Your task to perform on an android device: Find coffee shops on Maps Image 0: 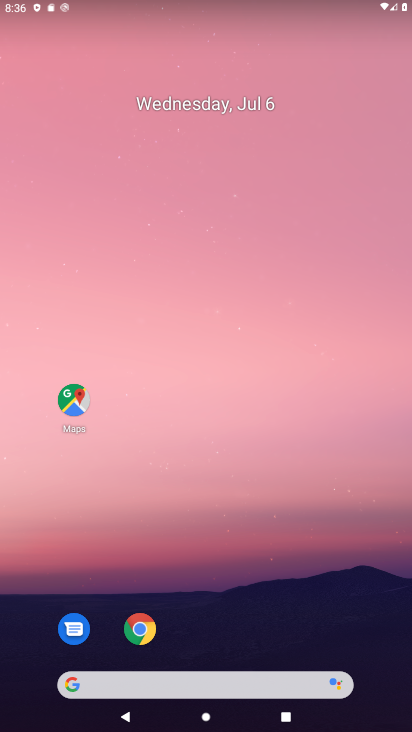
Step 0: drag from (234, 632) to (228, 149)
Your task to perform on an android device: Find coffee shops on Maps Image 1: 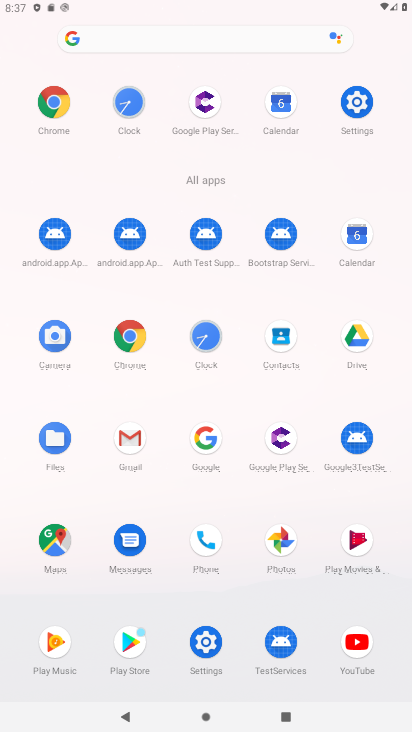
Step 1: click (58, 541)
Your task to perform on an android device: Find coffee shops on Maps Image 2: 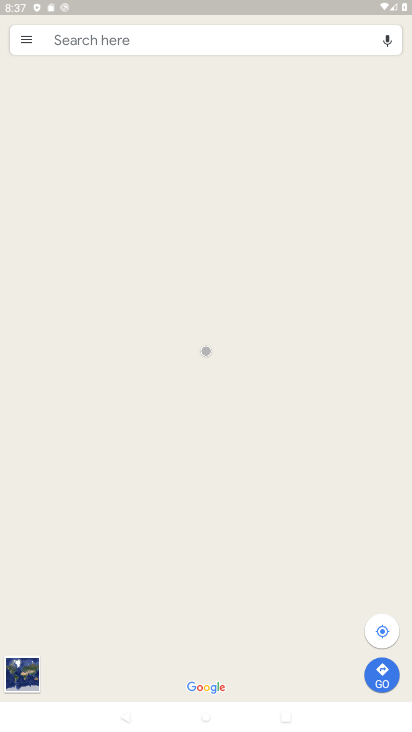
Step 2: click (151, 39)
Your task to perform on an android device: Find coffee shops on Maps Image 3: 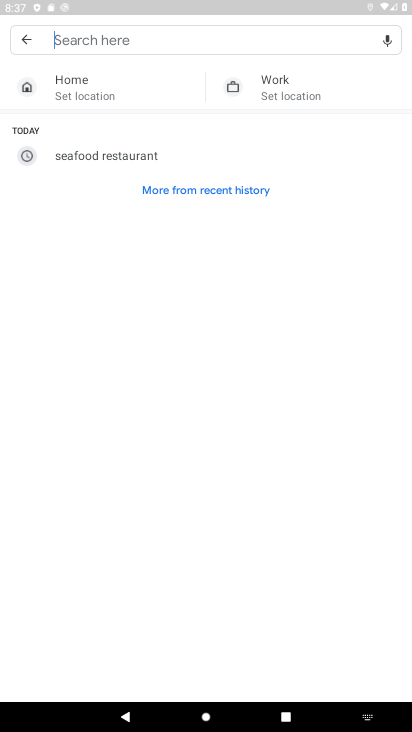
Step 3: type "coffee shops"
Your task to perform on an android device: Find coffee shops on Maps Image 4: 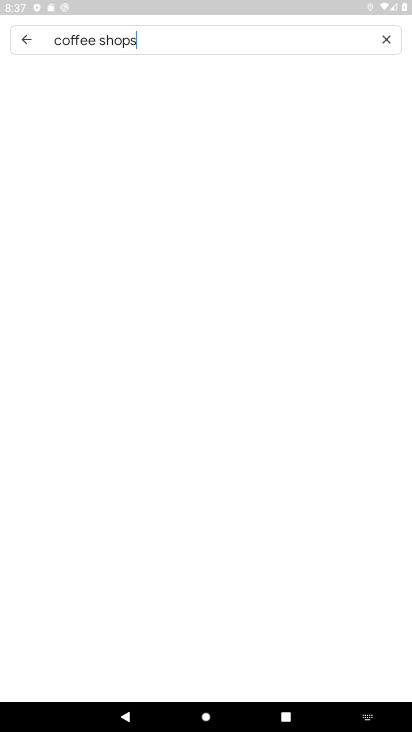
Step 4: type ""
Your task to perform on an android device: Find coffee shops on Maps Image 5: 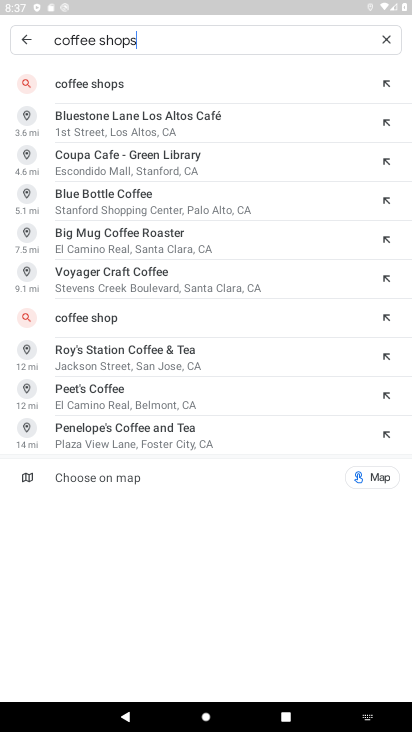
Step 5: click (99, 87)
Your task to perform on an android device: Find coffee shops on Maps Image 6: 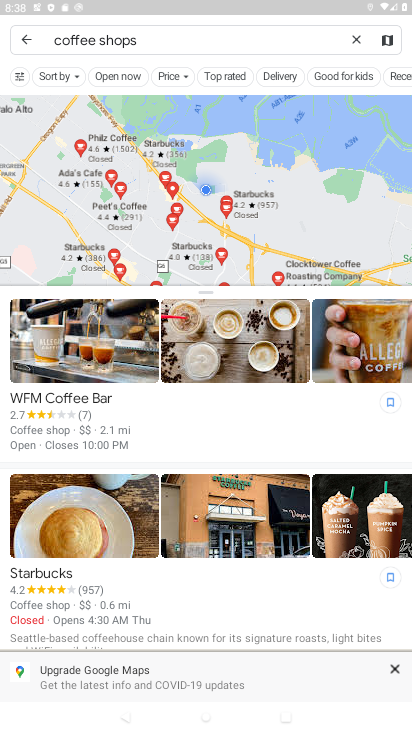
Step 6: task complete